Your task to perform on an android device: see tabs open on other devices in the chrome app Image 0: 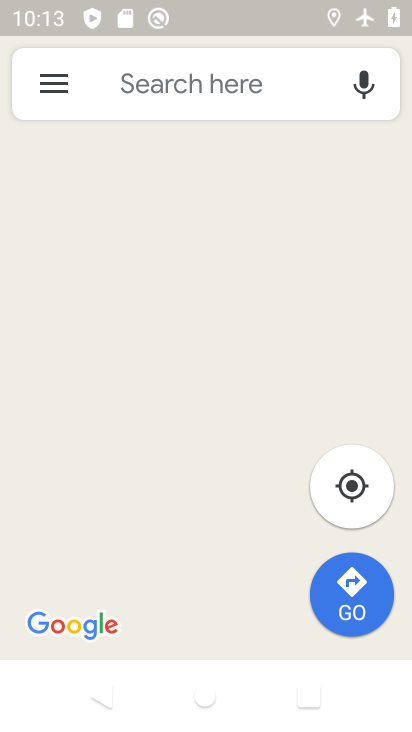
Step 0: press home button
Your task to perform on an android device: see tabs open on other devices in the chrome app Image 1: 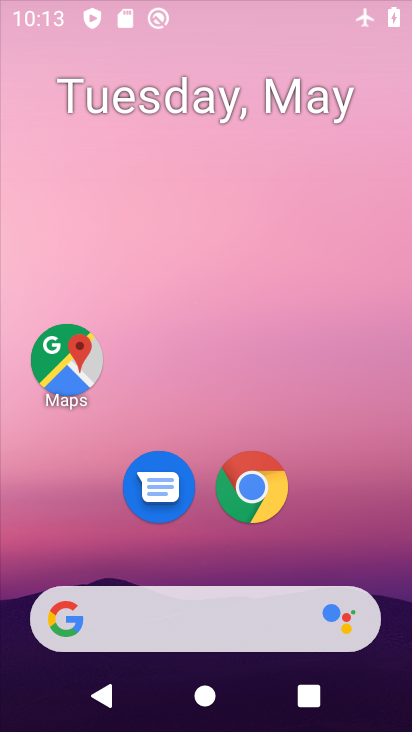
Step 1: drag from (174, 563) to (298, 197)
Your task to perform on an android device: see tabs open on other devices in the chrome app Image 2: 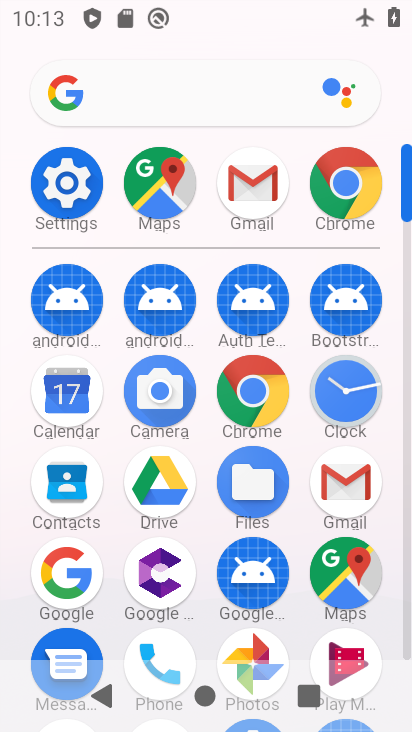
Step 2: click (343, 195)
Your task to perform on an android device: see tabs open on other devices in the chrome app Image 3: 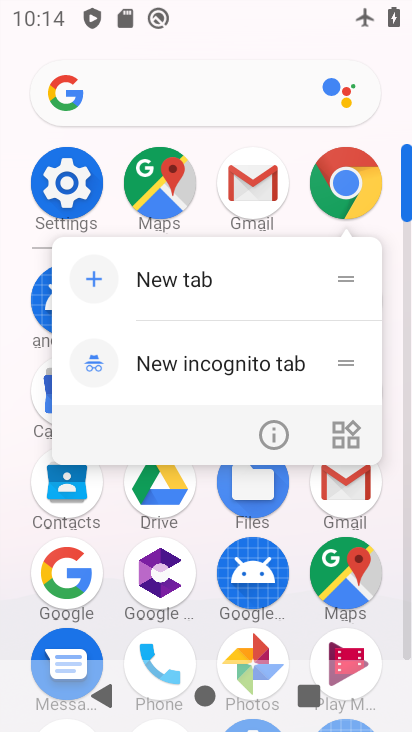
Step 3: click (260, 446)
Your task to perform on an android device: see tabs open on other devices in the chrome app Image 4: 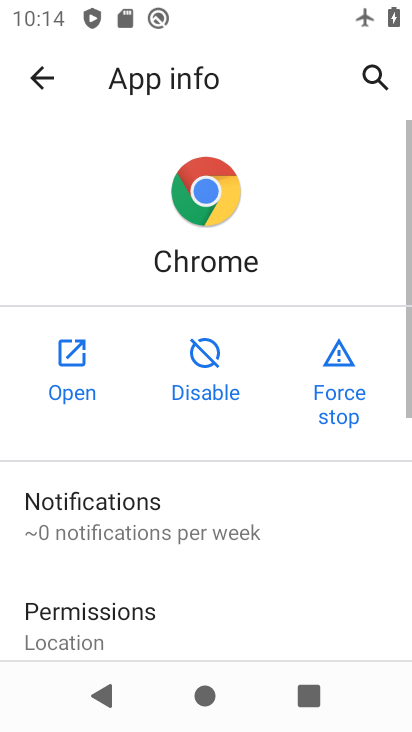
Step 4: click (37, 371)
Your task to perform on an android device: see tabs open on other devices in the chrome app Image 5: 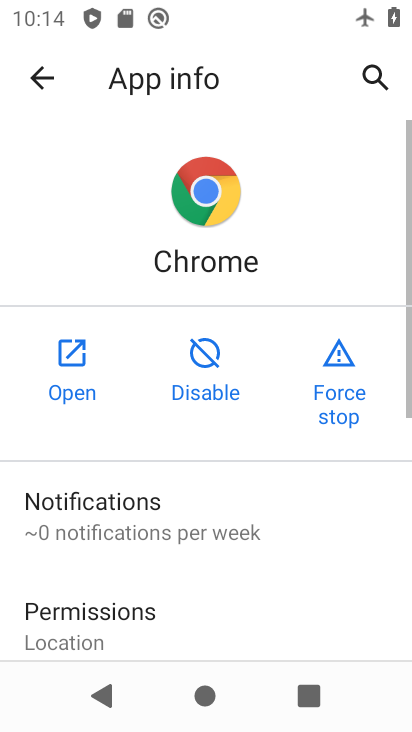
Step 5: click (37, 371)
Your task to perform on an android device: see tabs open on other devices in the chrome app Image 6: 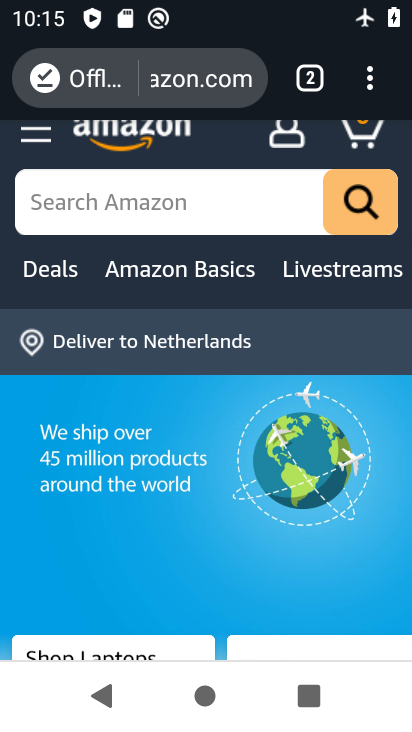
Step 6: click (376, 72)
Your task to perform on an android device: see tabs open on other devices in the chrome app Image 7: 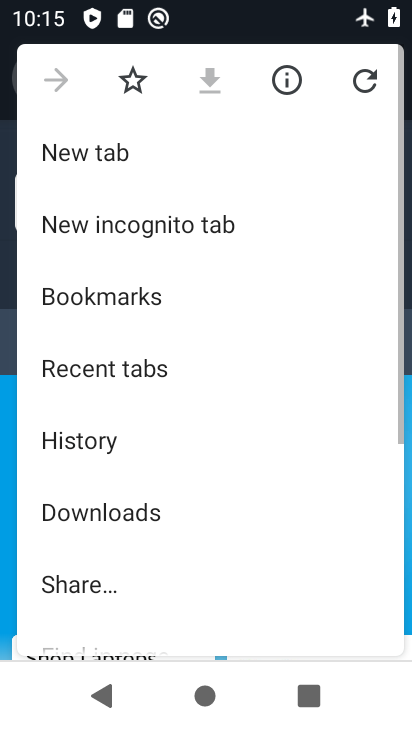
Step 7: drag from (202, 588) to (303, 146)
Your task to perform on an android device: see tabs open on other devices in the chrome app Image 8: 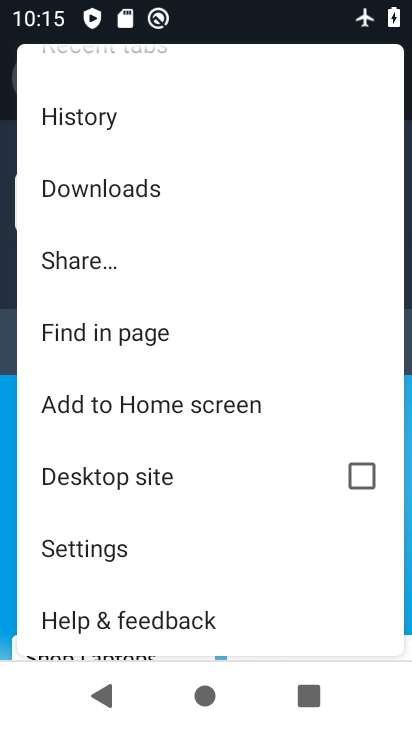
Step 8: drag from (140, 177) to (243, 549)
Your task to perform on an android device: see tabs open on other devices in the chrome app Image 9: 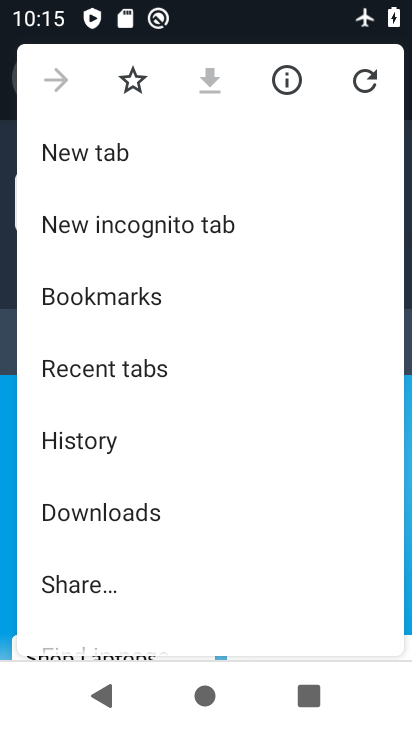
Step 9: click (103, 368)
Your task to perform on an android device: see tabs open on other devices in the chrome app Image 10: 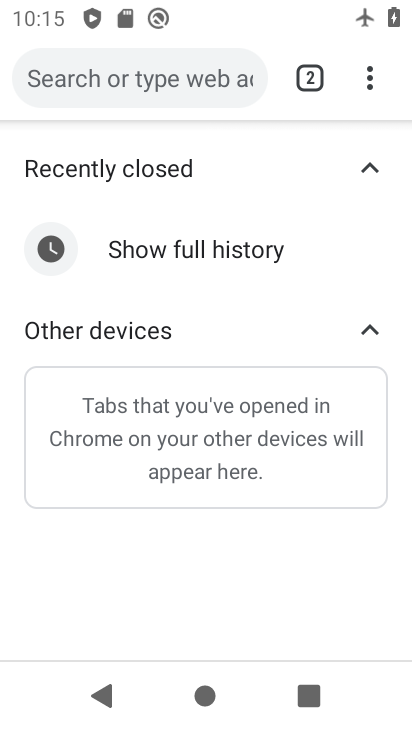
Step 10: task complete